Your task to perform on an android device: turn off translation in the chrome app Image 0: 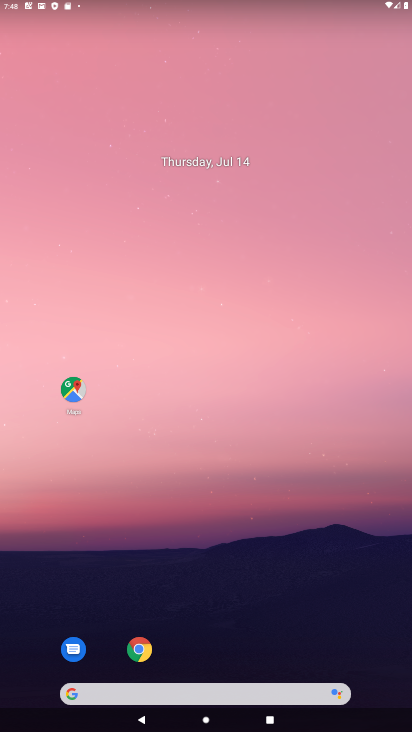
Step 0: press home button
Your task to perform on an android device: turn off translation in the chrome app Image 1: 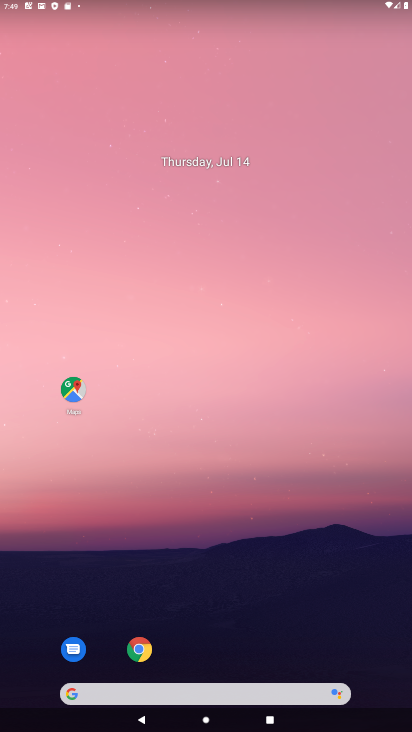
Step 1: click (137, 652)
Your task to perform on an android device: turn off translation in the chrome app Image 2: 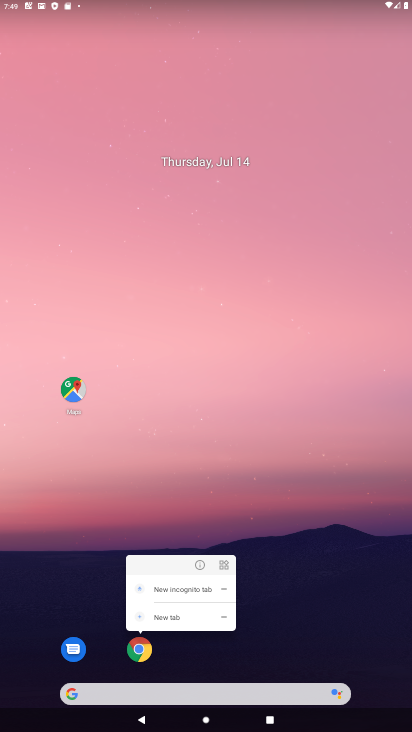
Step 2: click (143, 648)
Your task to perform on an android device: turn off translation in the chrome app Image 3: 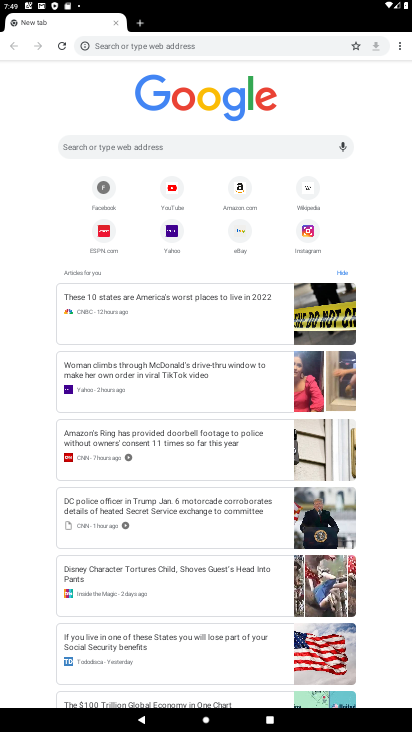
Step 3: click (395, 46)
Your task to perform on an android device: turn off translation in the chrome app Image 4: 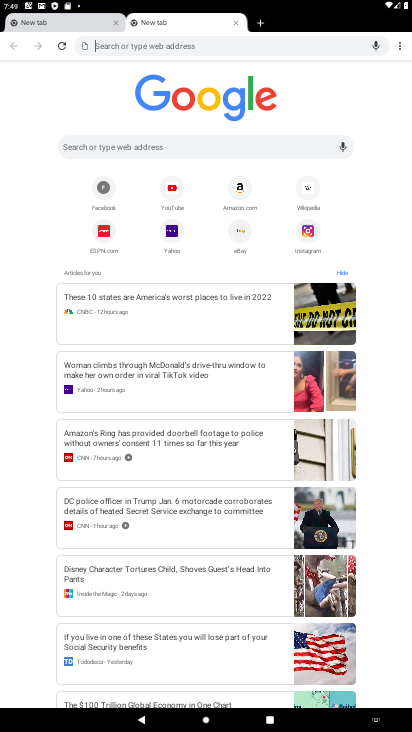
Step 4: click (403, 42)
Your task to perform on an android device: turn off translation in the chrome app Image 5: 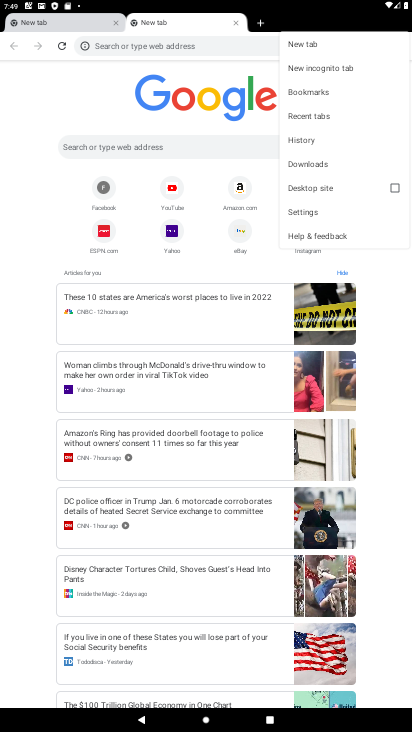
Step 5: click (317, 214)
Your task to perform on an android device: turn off translation in the chrome app Image 6: 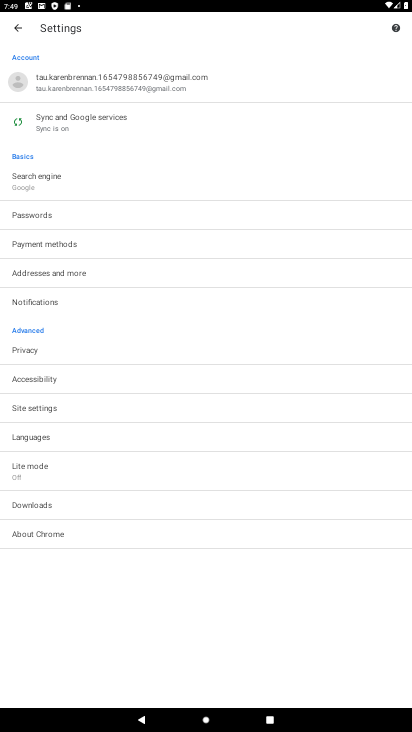
Step 6: click (59, 439)
Your task to perform on an android device: turn off translation in the chrome app Image 7: 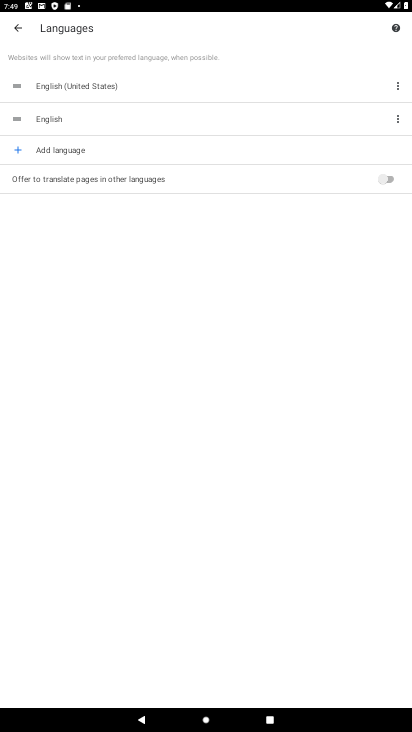
Step 7: click (388, 174)
Your task to perform on an android device: turn off translation in the chrome app Image 8: 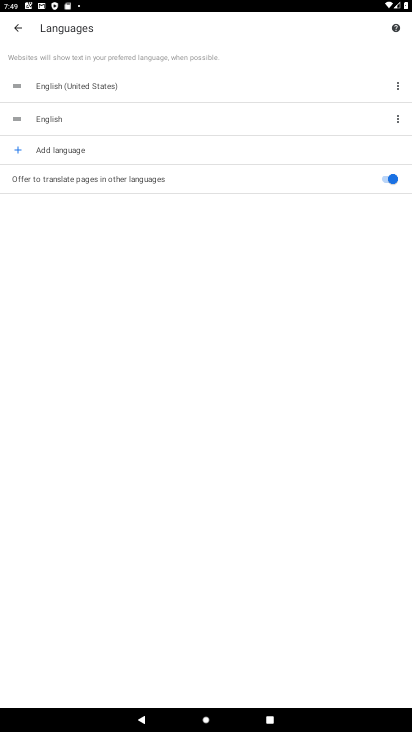
Step 8: click (392, 180)
Your task to perform on an android device: turn off translation in the chrome app Image 9: 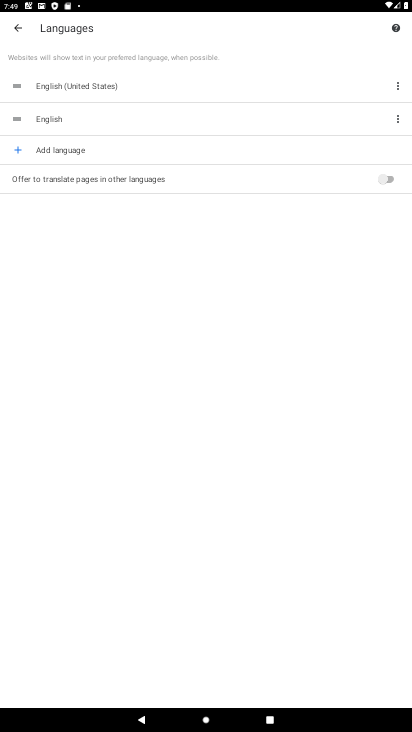
Step 9: task complete